Your task to perform on an android device: toggle airplane mode Image 0: 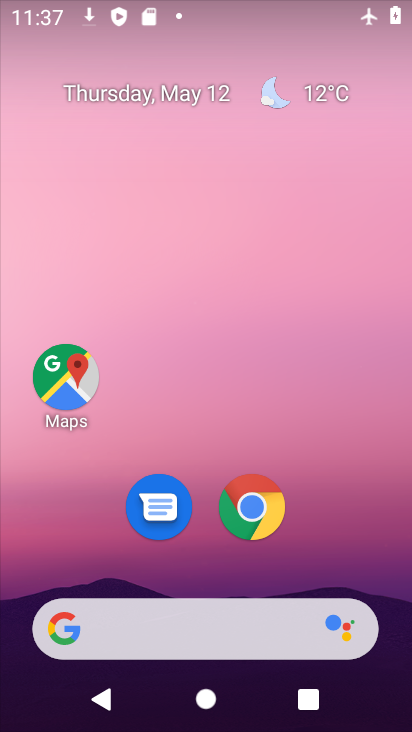
Step 0: drag from (331, 547) to (334, 163)
Your task to perform on an android device: toggle airplane mode Image 1: 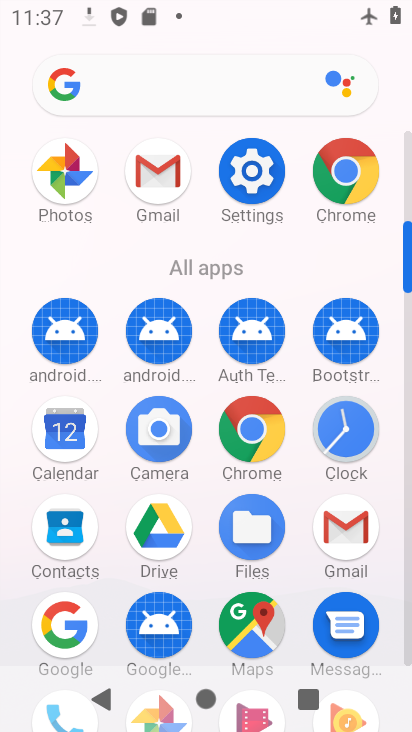
Step 1: click (271, 185)
Your task to perform on an android device: toggle airplane mode Image 2: 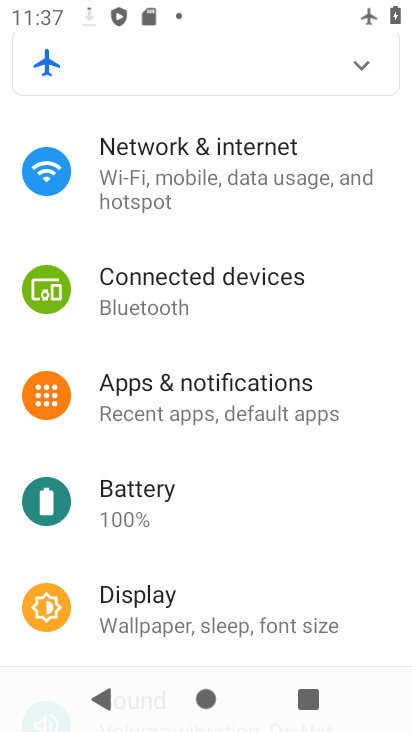
Step 2: click (268, 177)
Your task to perform on an android device: toggle airplane mode Image 3: 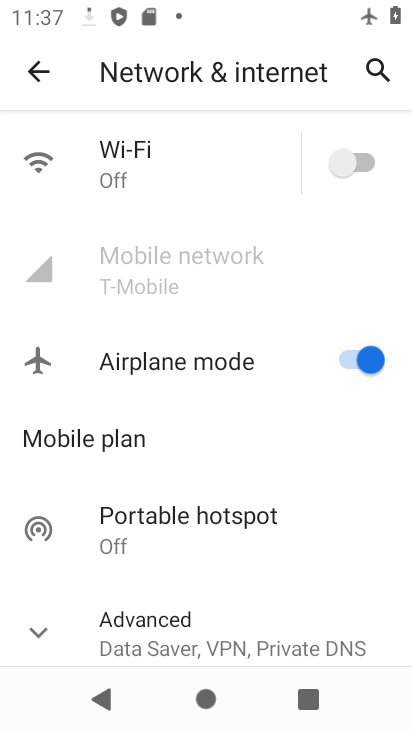
Step 3: click (367, 357)
Your task to perform on an android device: toggle airplane mode Image 4: 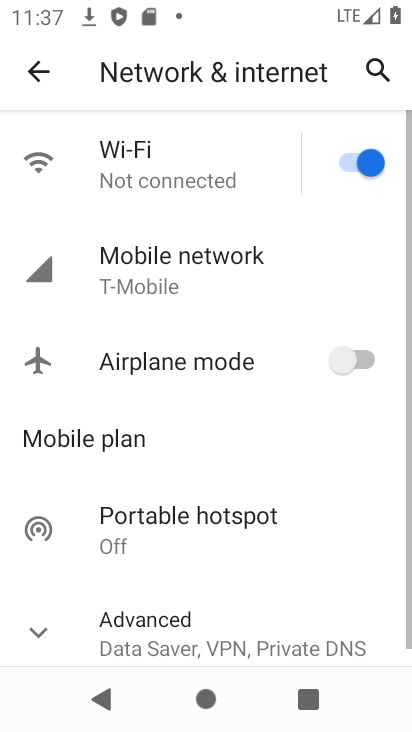
Step 4: task complete